Your task to perform on an android device: set default search engine in the chrome app Image 0: 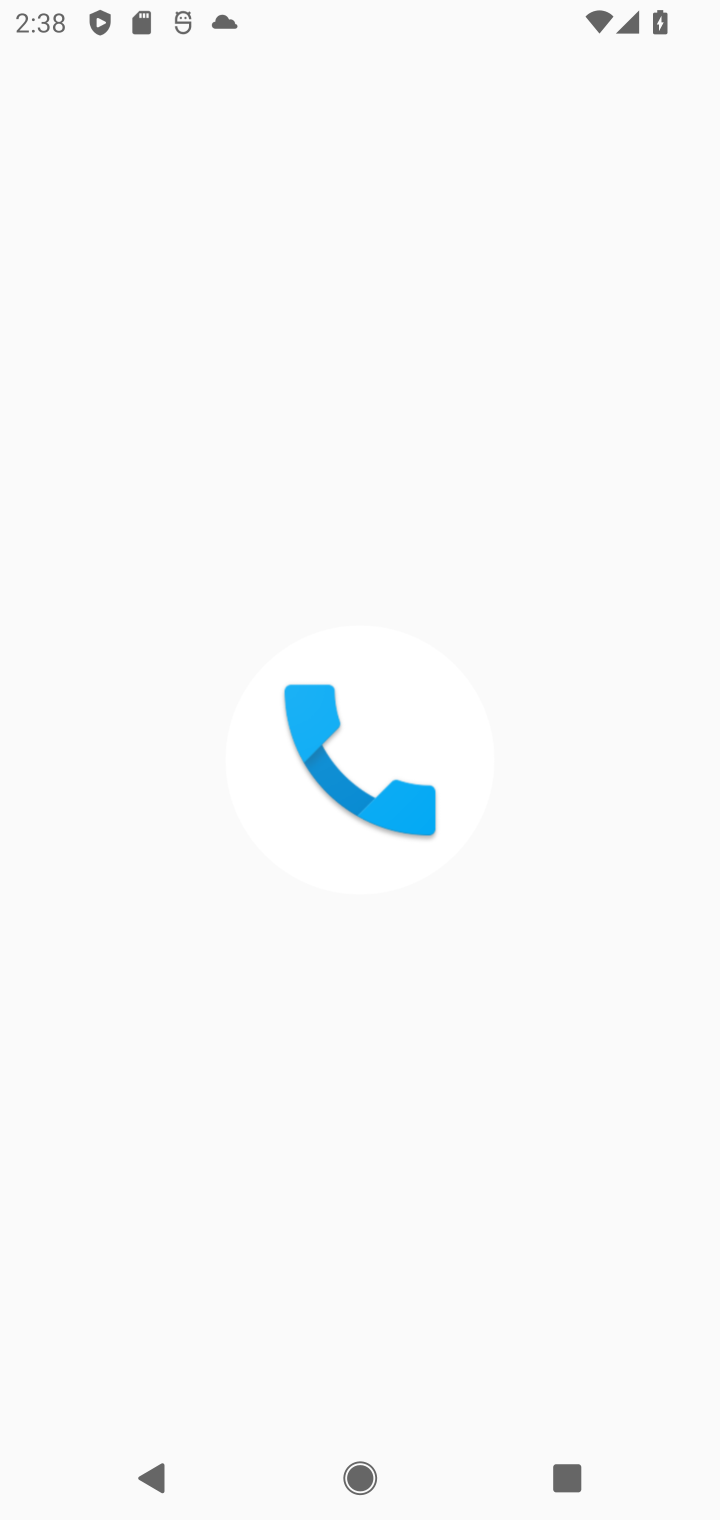
Step 0: press home button
Your task to perform on an android device: set default search engine in the chrome app Image 1: 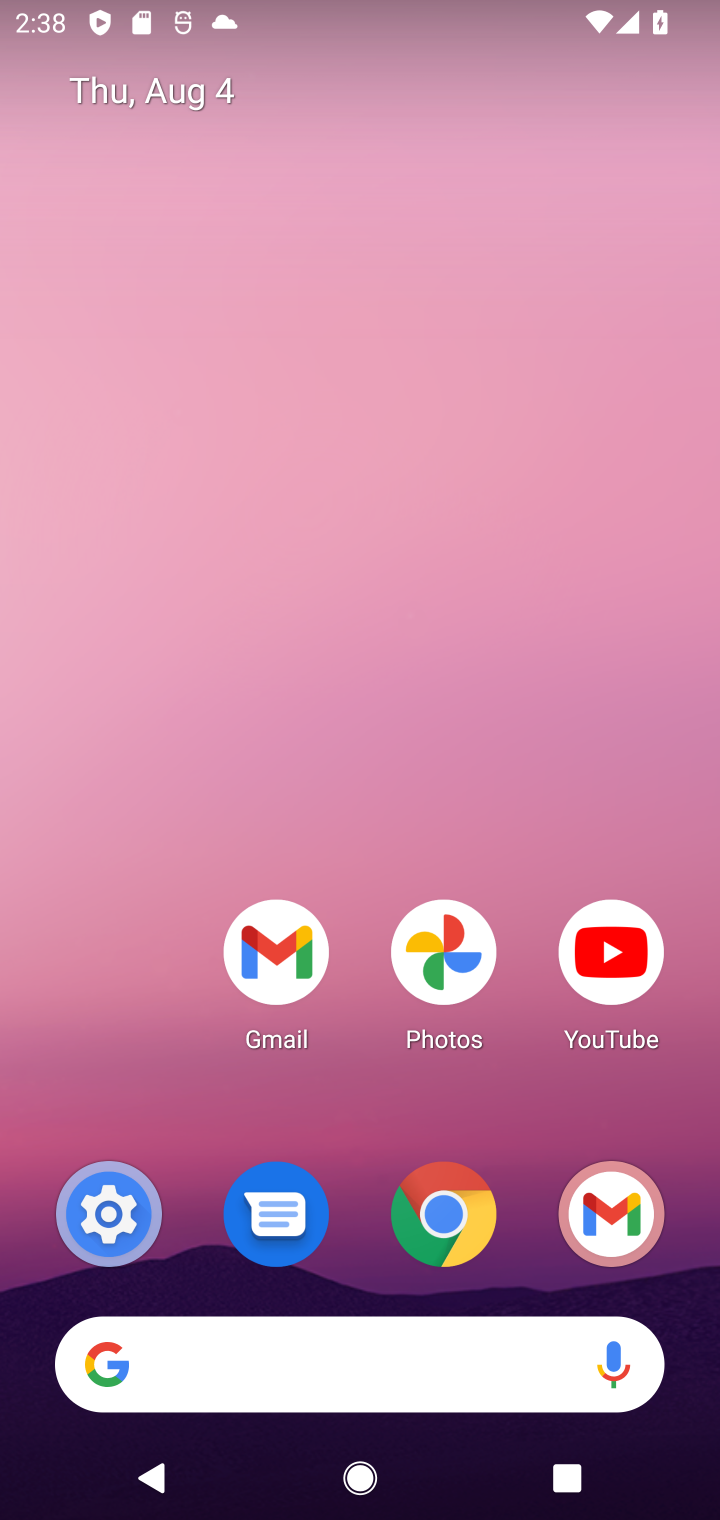
Step 1: drag from (99, 1123) to (33, 132)
Your task to perform on an android device: set default search engine in the chrome app Image 2: 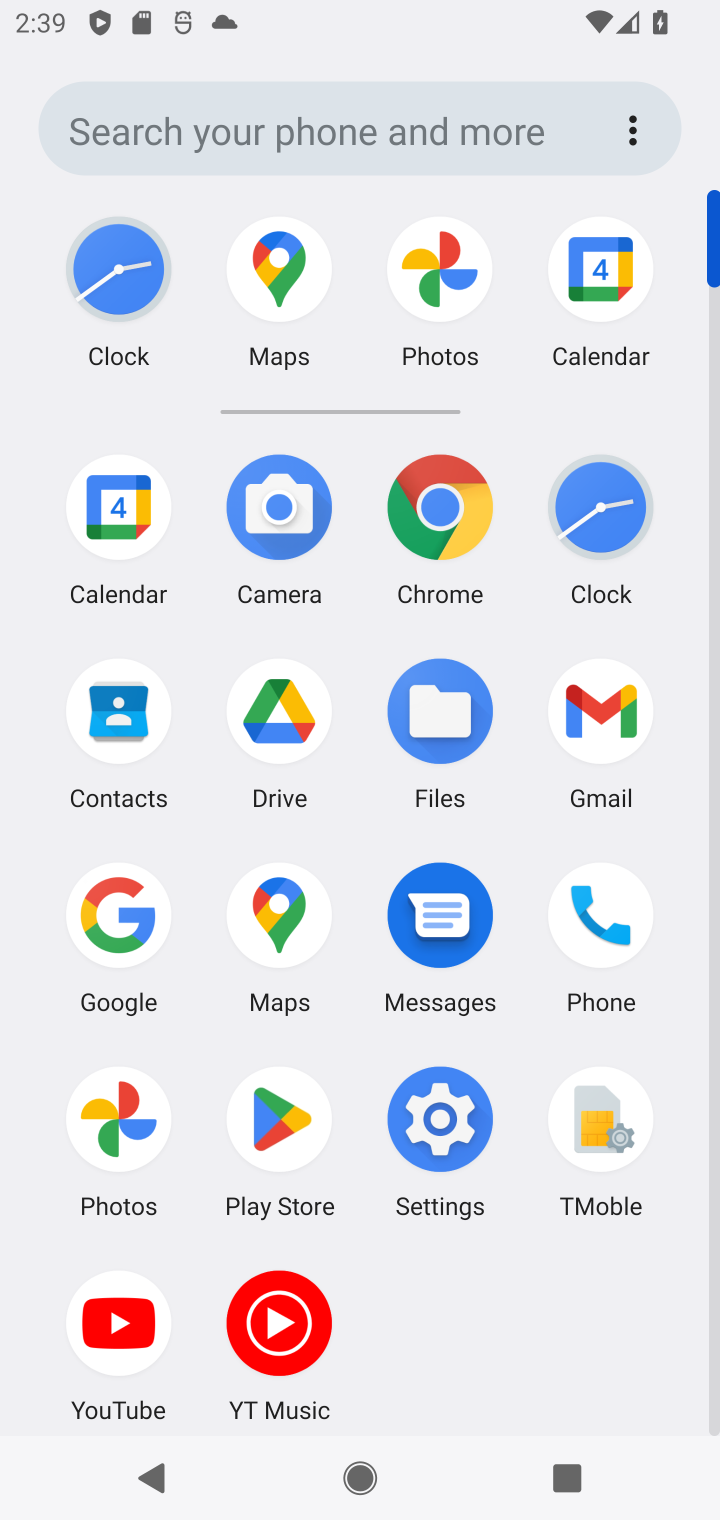
Step 2: click (444, 505)
Your task to perform on an android device: set default search engine in the chrome app Image 3: 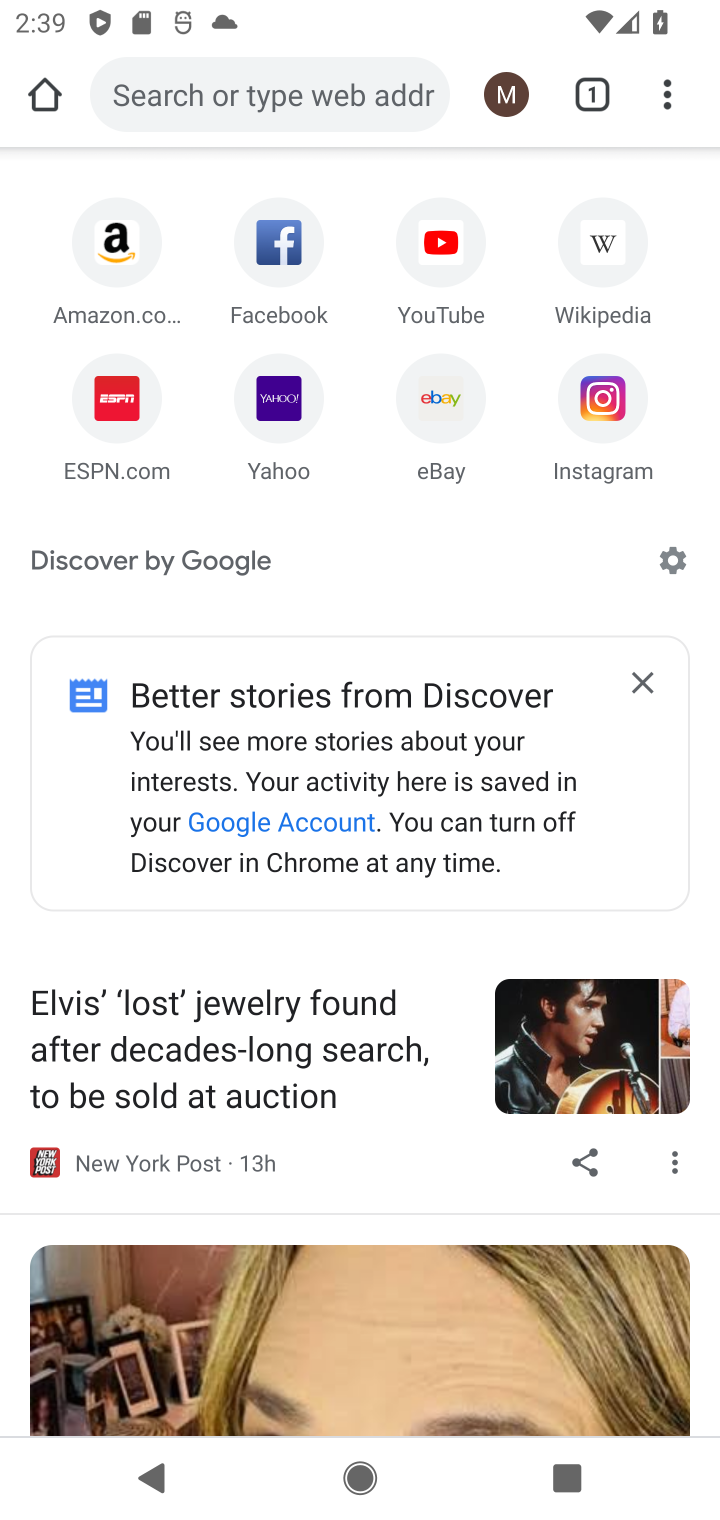
Step 3: click (661, 79)
Your task to perform on an android device: set default search engine in the chrome app Image 4: 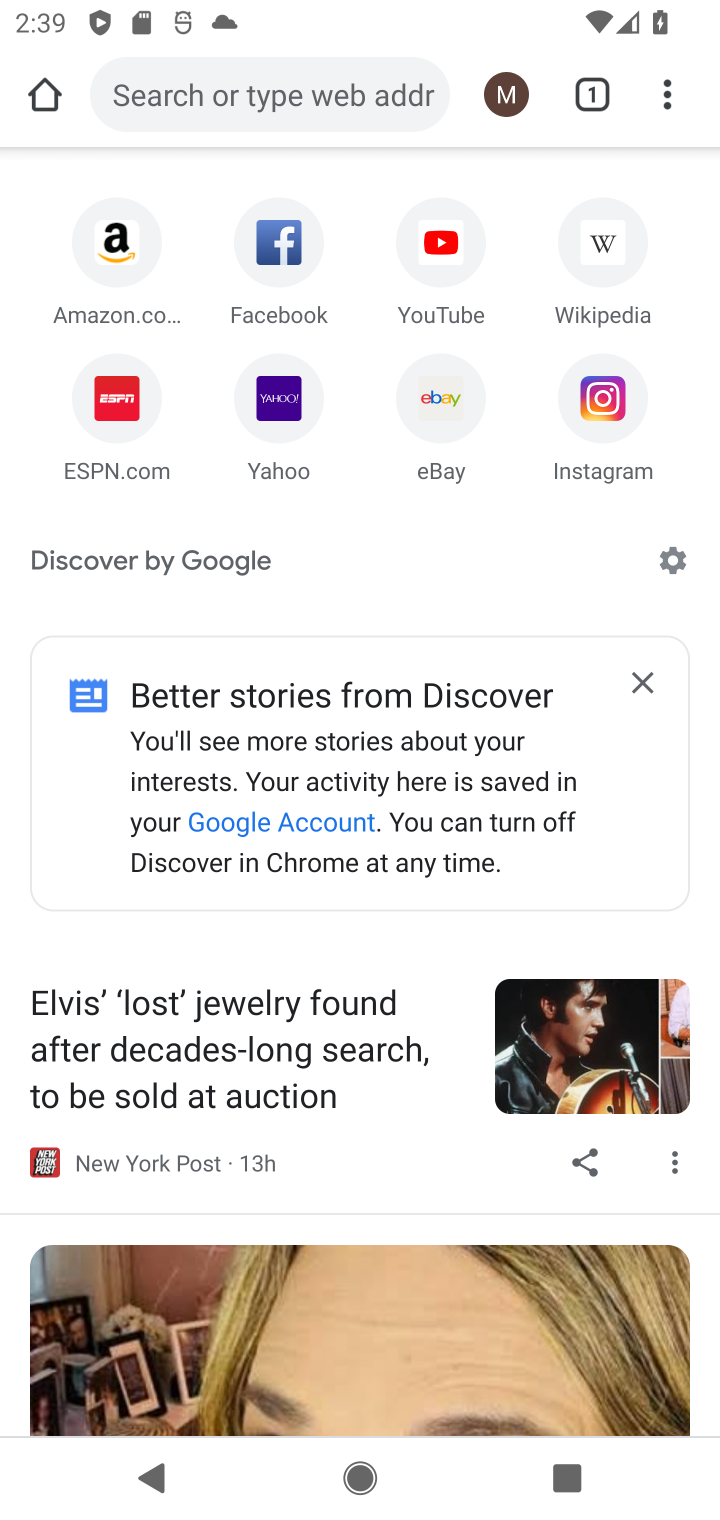
Step 4: click (660, 88)
Your task to perform on an android device: set default search engine in the chrome app Image 5: 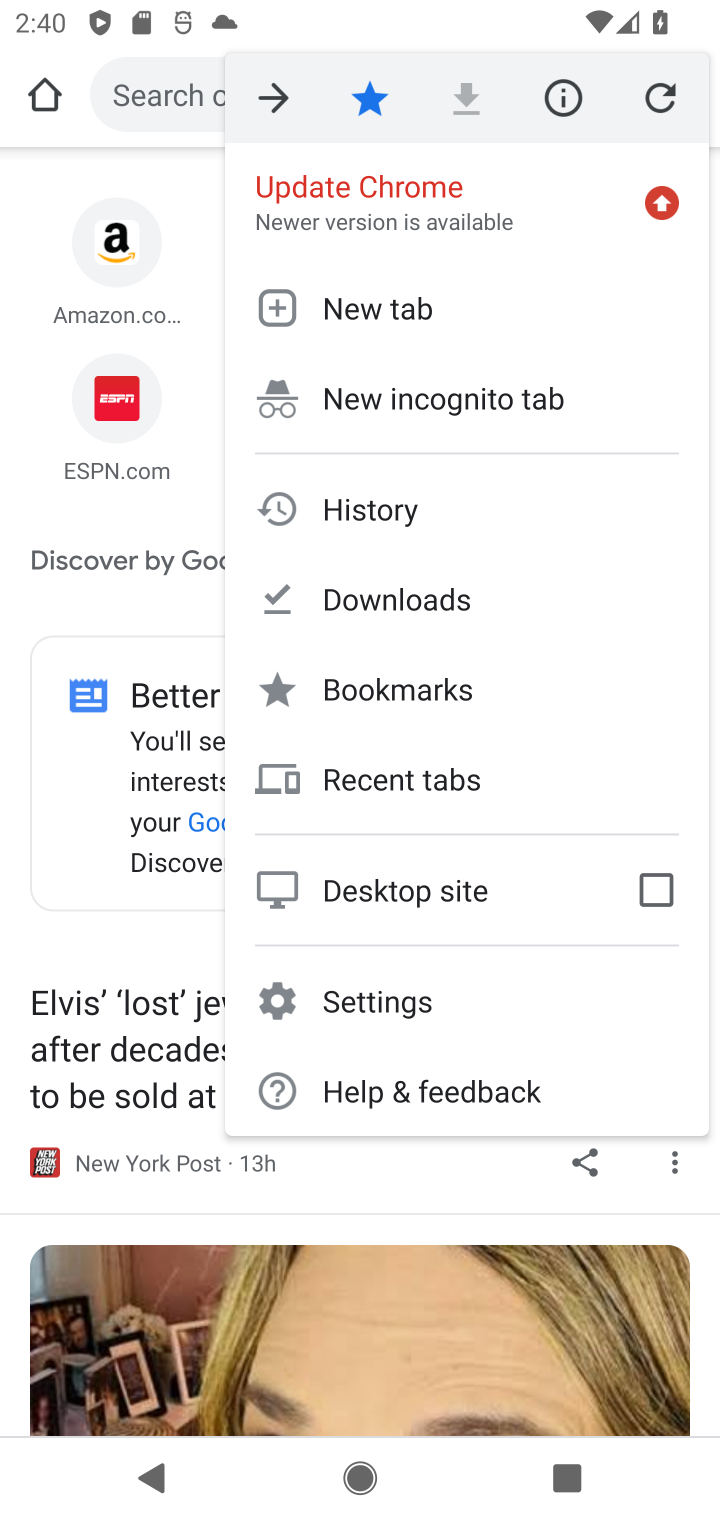
Step 5: click (409, 1004)
Your task to perform on an android device: set default search engine in the chrome app Image 6: 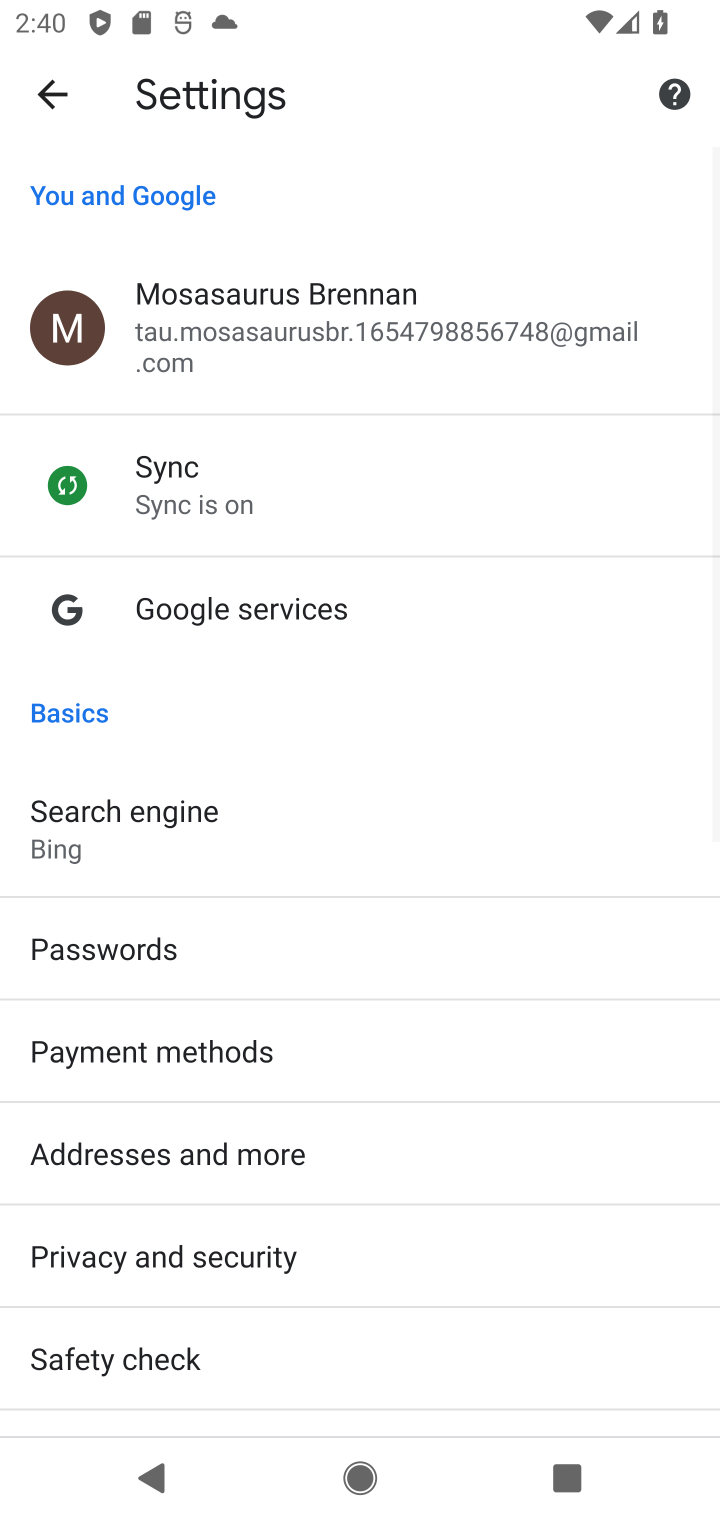
Step 6: click (143, 822)
Your task to perform on an android device: set default search engine in the chrome app Image 7: 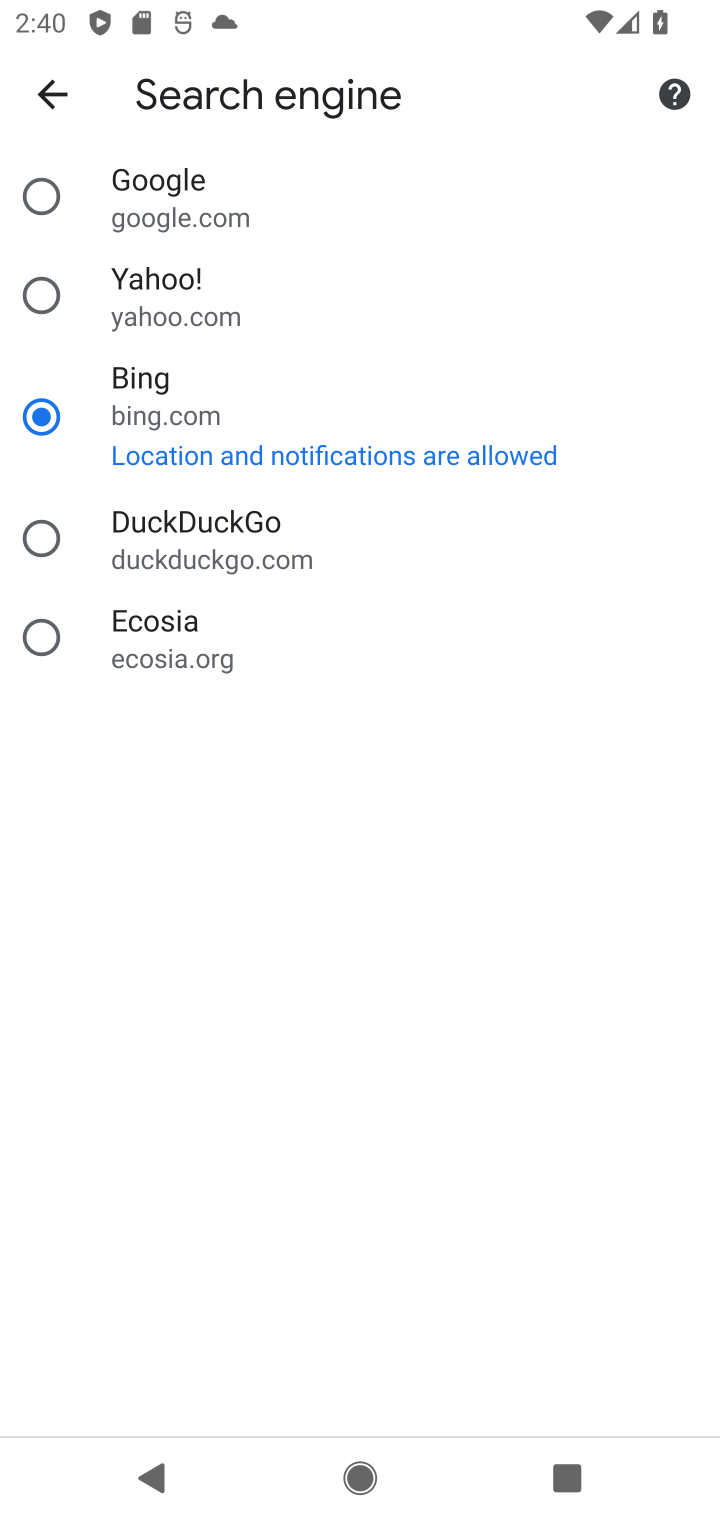
Step 7: click (131, 183)
Your task to perform on an android device: set default search engine in the chrome app Image 8: 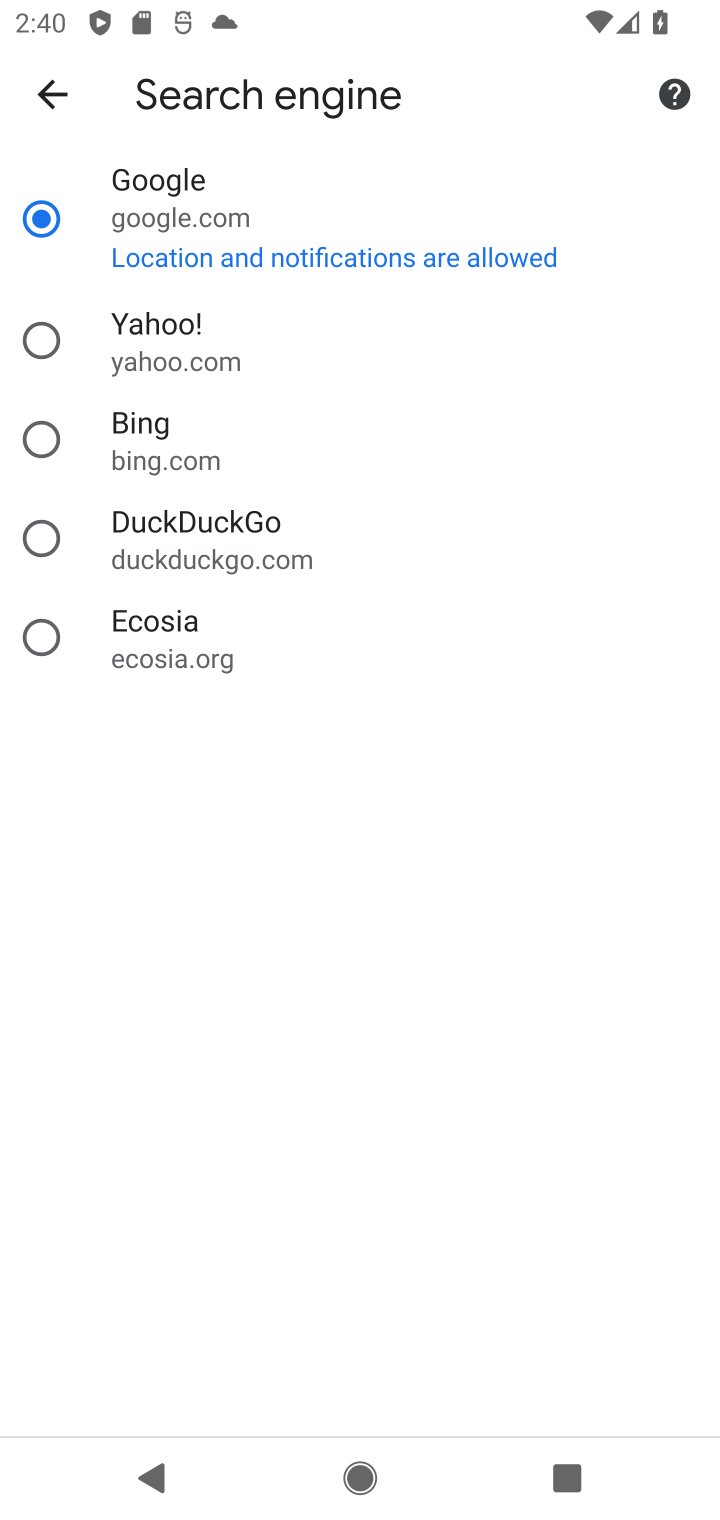
Step 8: task complete